Your task to perform on an android device: turn pop-ups off in chrome Image 0: 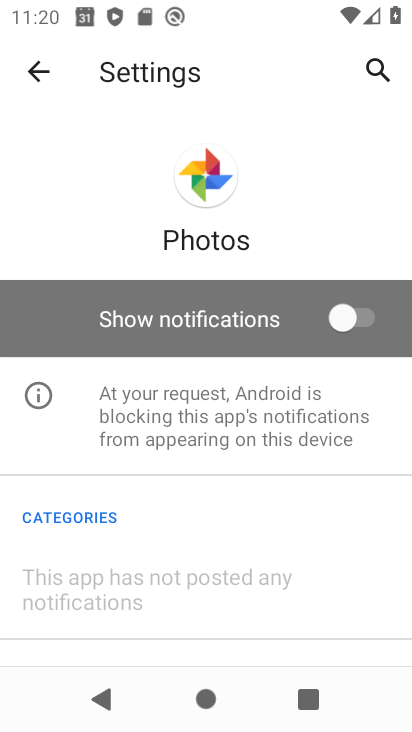
Step 0: press home button
Your task to perform on an android device: turn pop-ups off in chrome Image 1: 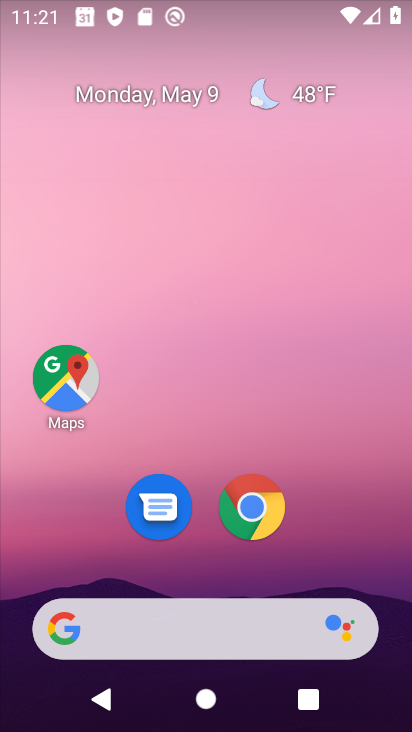
Step 1: click (254, 514)
Your task to perform on an android device: turn pop-ups off in chrome Image 2: 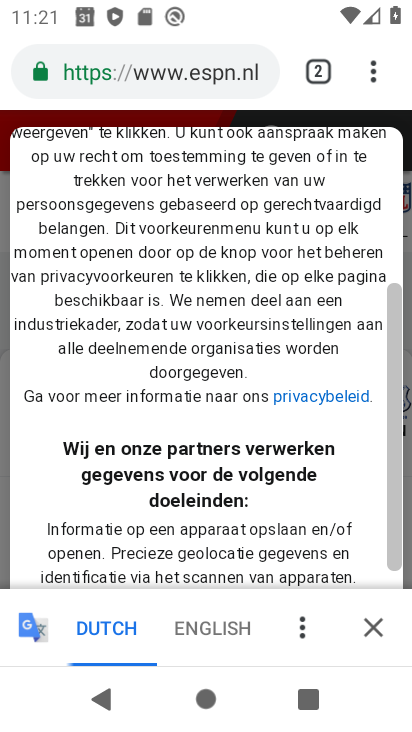
Step 2: click (377, 72)
Your task to perform on an android device: turn pop-ups off in chrome Image 3: 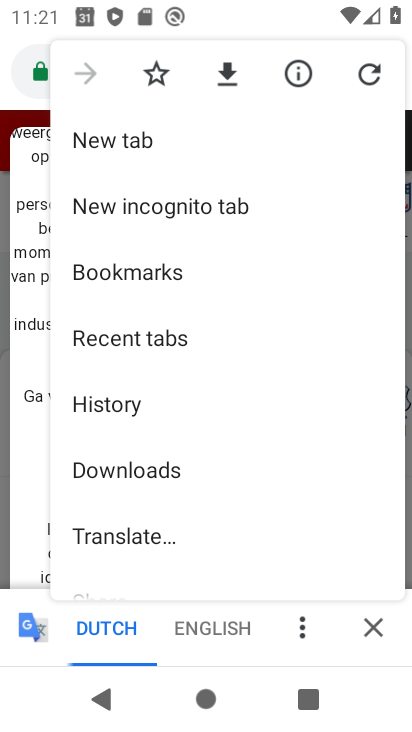
Step 3: drag from (171, 524) to (161, 357)
Your task to perform on an android device: turn pop-ups off in chrome Image 4: 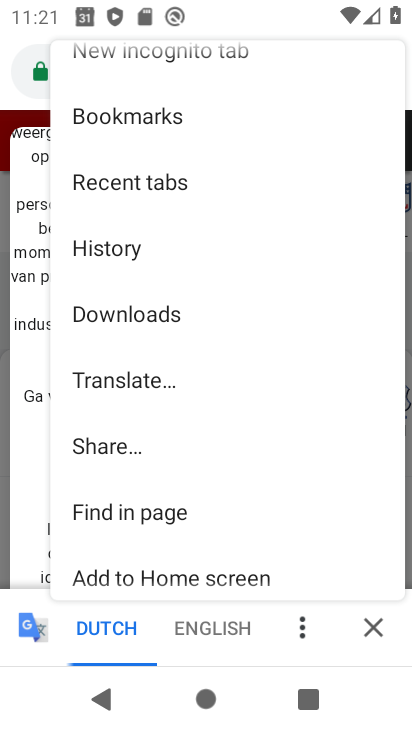
Step 4: drag from (181, 528) to (168, 289)
Your task to perform on an android device: turn pop-ups off in chrome Image 5: 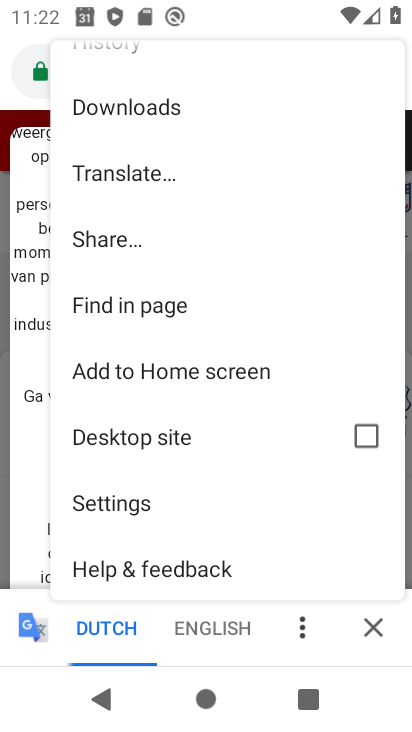
Step 5: click (159, 498)
Your task to perform on an android device: turn pop-ups off in chrome Image 6: 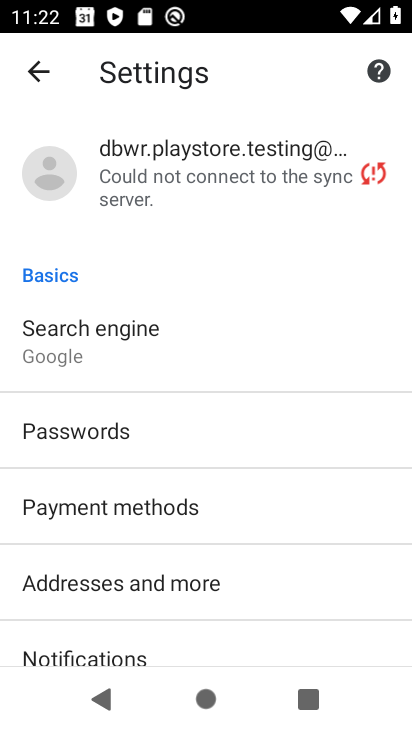
Step 6: drag from (295, 624) to (293, 329)
Your task to perform on an android device: turn pop-ups off in chrome Image 7: 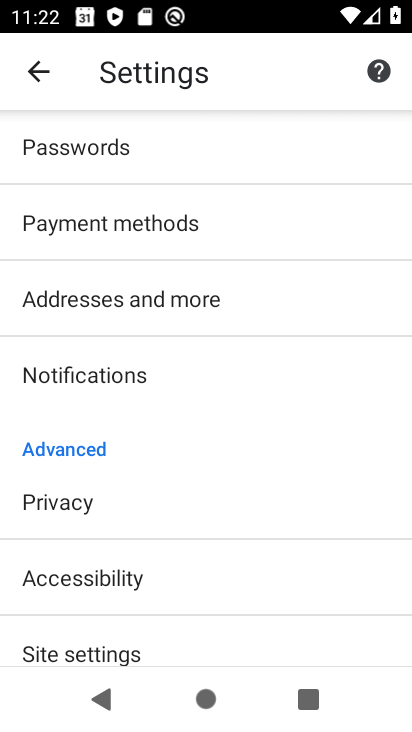
Step 7: click (150, 650)
Your task to perform on an android device: turn pop-ups off in chrome Image 8: 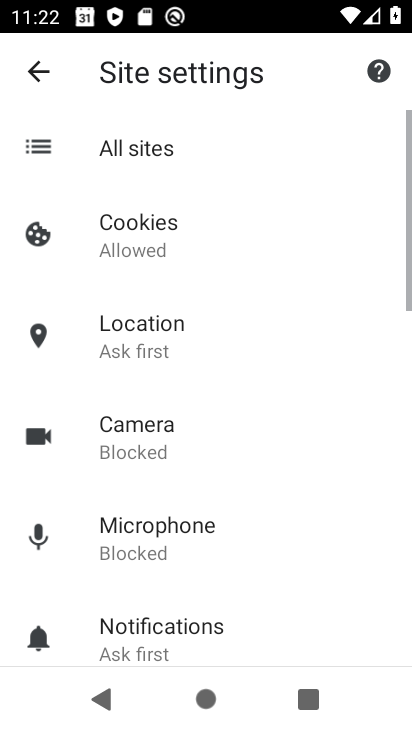
Step 8: drag from (295, 574) to (287, 288)
Your task to perform on an android device: turn pop-ups off in chrome Image 9: 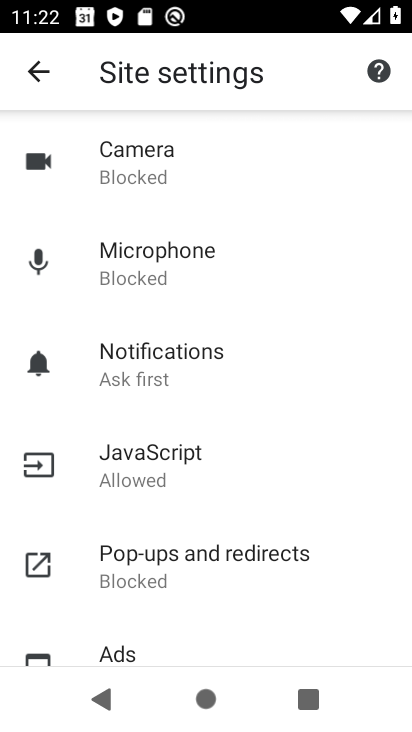
Step 9: click (221, 567)
Your task to perform on an android device: turn pop-ups off in chrome Image 10: 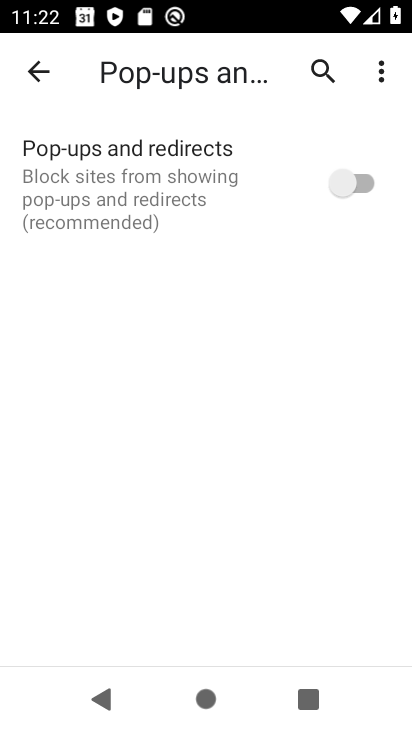
Step 10: task complete